Your task to perform on an android device: move an email to a new category in the gmail app Image 0: 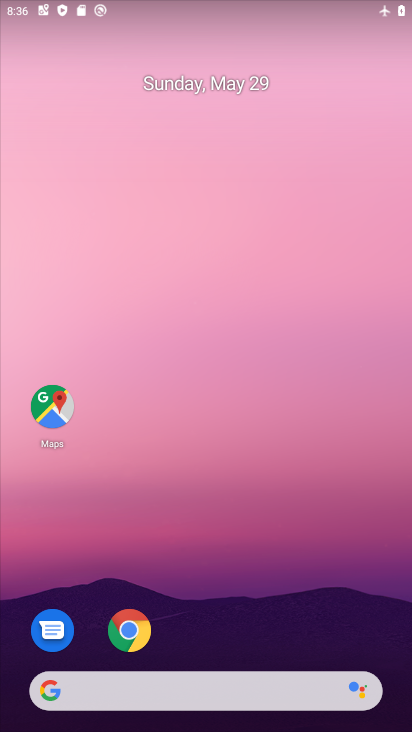
Step 0: drag from (221, 671) to (174, 37)
Your task to perform on an android device: move an email to a new category in the gmail app Image 1: 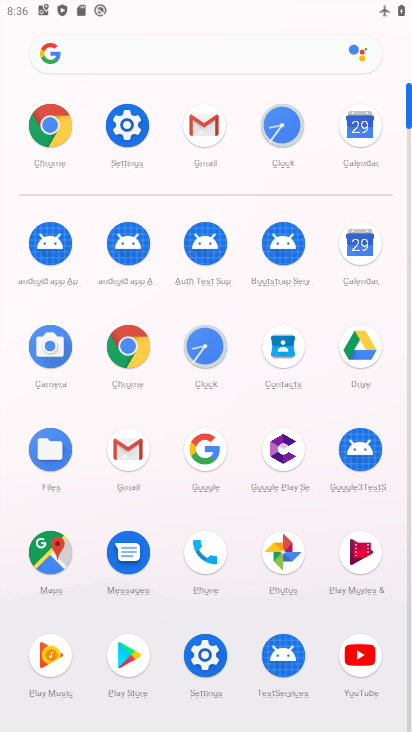
Step 1: click (126, 458)
Your task to perform on an android device: move an email to a new category in the gmail app Image 2: 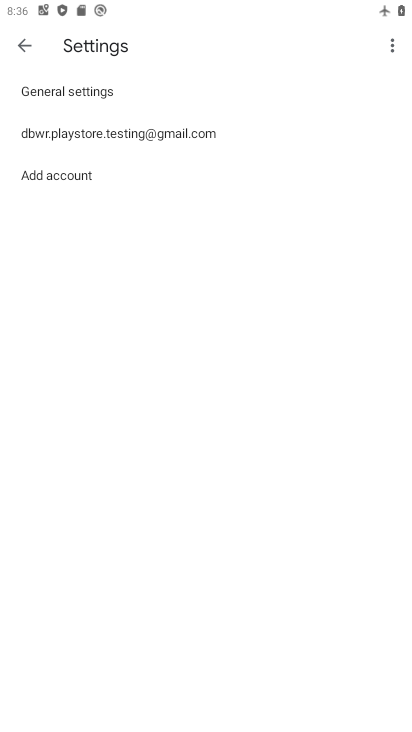
Step 2: click (23, 42)
Your task to perform on an android device: move an email to a new category in the gmail app Image 3: 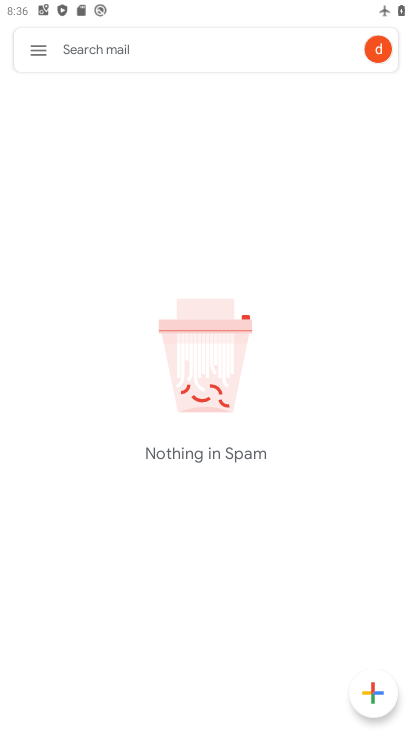
Step 3: click (23, 42)
Your task to perform on an android device: move an email to a new category in the gmail app Image 4: 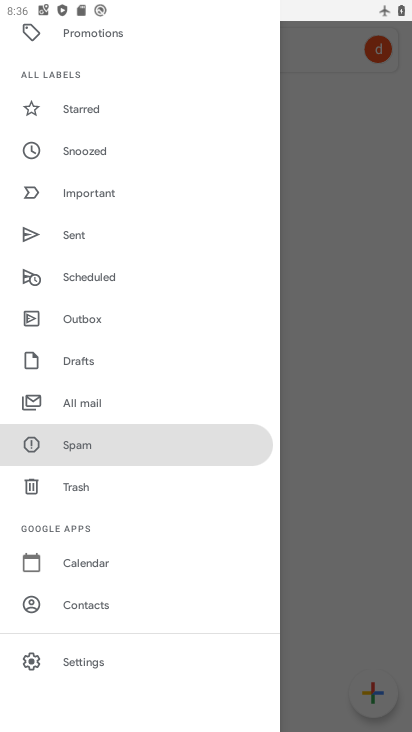
Step 4: click (62, 389)
Your task to perform on an android device: move an email to a new category in the gmail app Image 5: 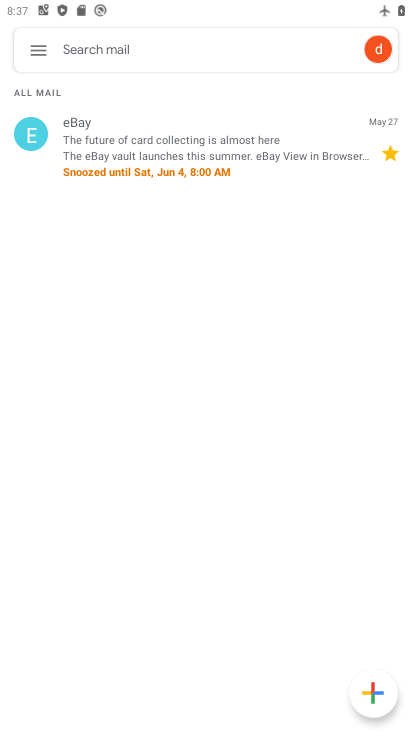
Step 5: click (41, 56)
Your task to perform on an android device: move an email to a new category in the gmail app Image 6: 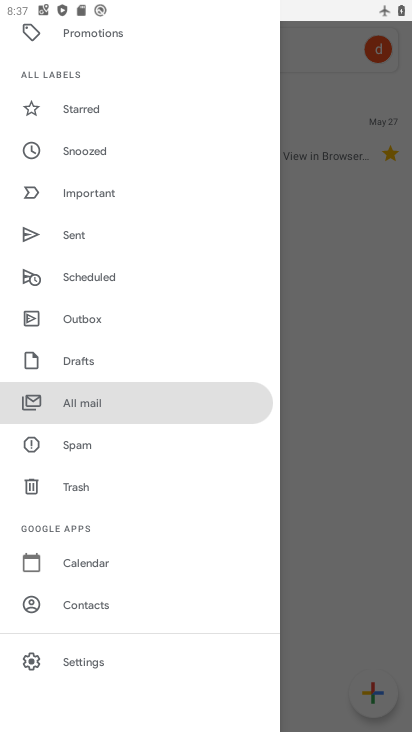
Step 6: click (70, 102)
Your task to perform on an android device: move an email to a new category in the gmail app Image 7: 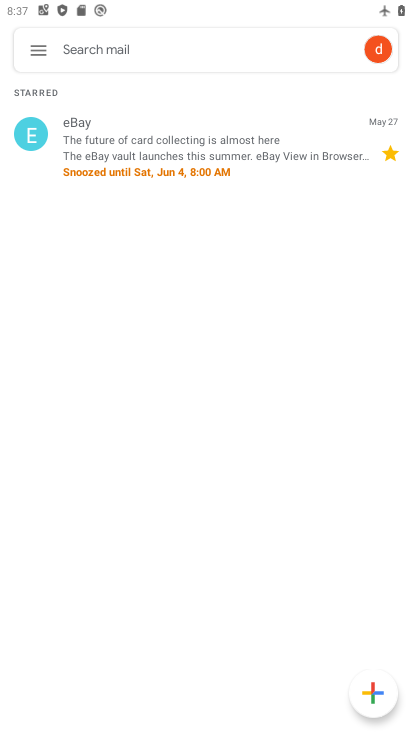
Step 7: click (218, 150)
Your task to perform on an android device: move an email to a new category in the gmail app Image 8: 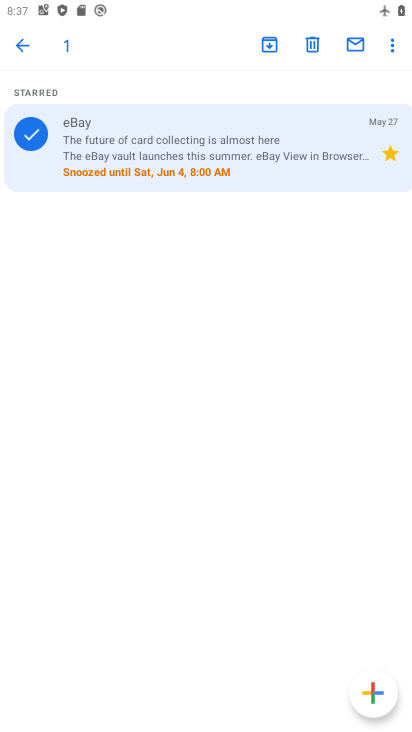
Step 8: click (385, 47)
Your task to perform on an android device: move an email to a new category in the gmail app Image 9: 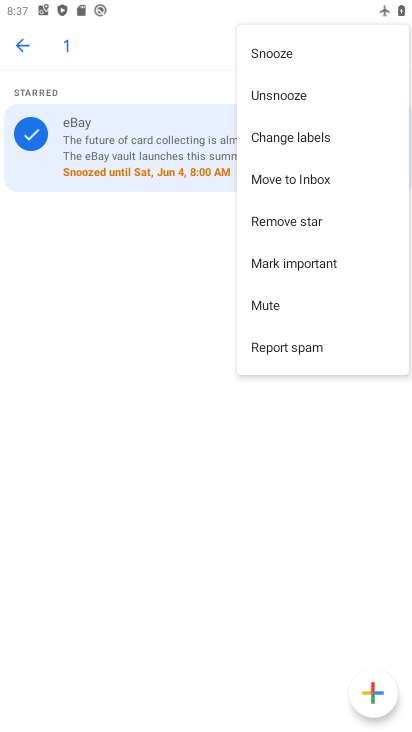
Step 9: click (301, 182)
Your task to perform on an android device: move an email to a new category in the gmail app Image 10: 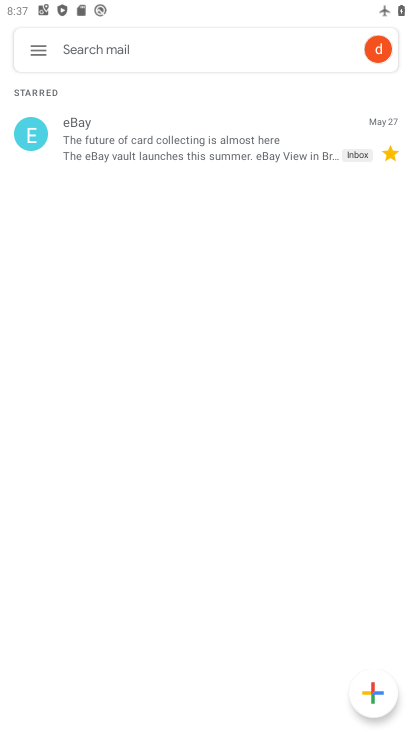
Step 10: task complete